Your task to perform on an android device: What's the weather today? Image 0: 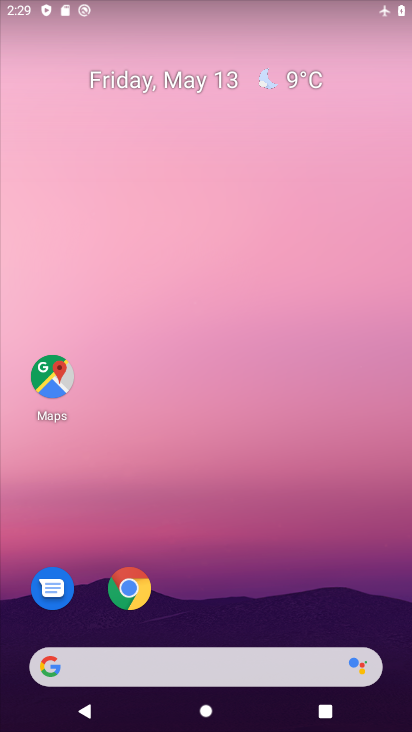
Step 0: click (317, 79)
Your task to perform on an android device: What's the weather today? Image 1: 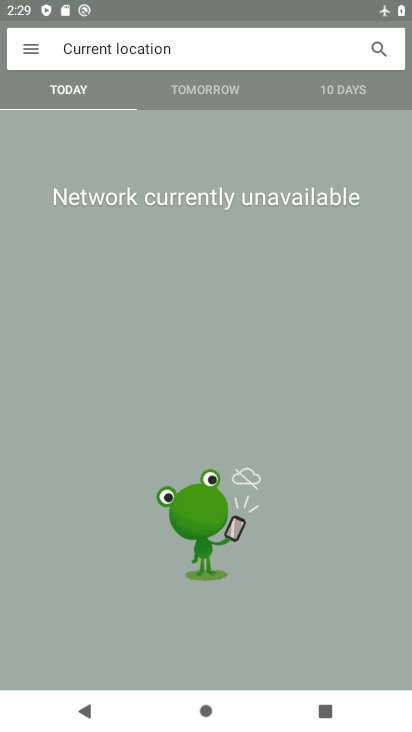
Step 1: task complete